Your task to perform on an android device: Do I have any events tomorrow? Image 0: 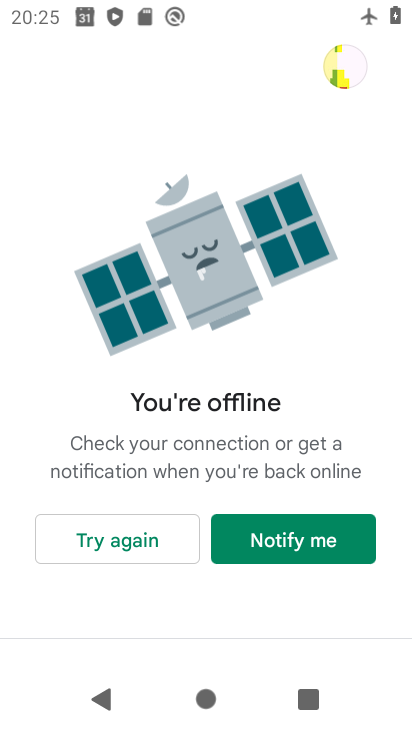
Step 0: press home button
Your task to perform on an android device: Do I have any events tomorrow? Image 1: 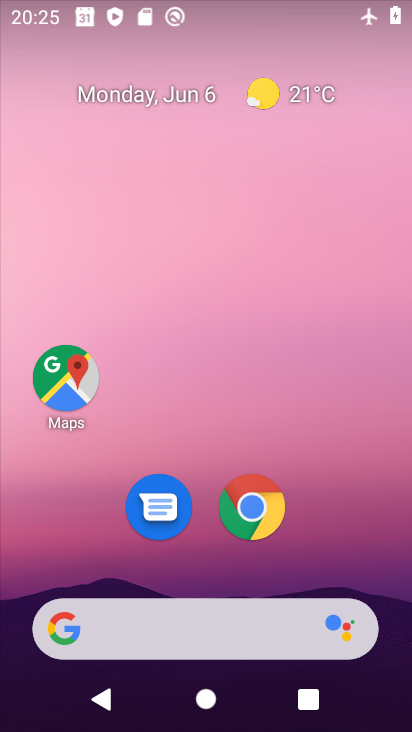
Step 1: drag from (215, 567) to (200, 57)
Your task to perform on an android device: Do I have any events tomorrow? Image 2: 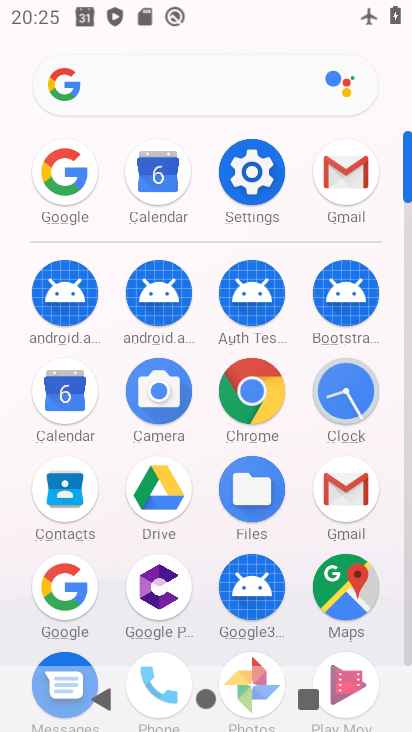
Step 2: click (64, 427)
Your task to perform on an android device: Do I have any events tomorrow? Image 3: 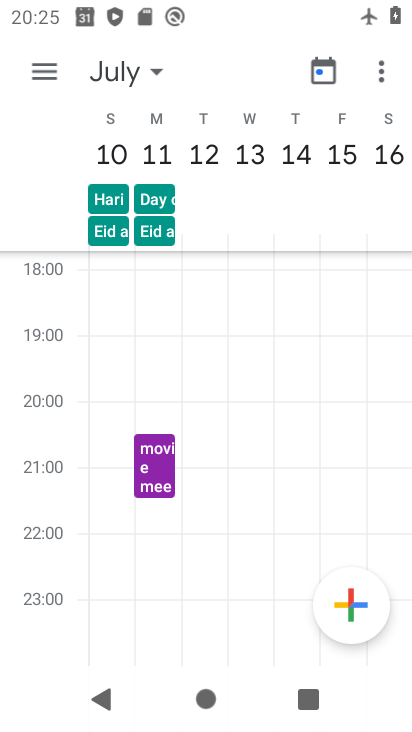
Step 3: click (123, 73)
Your task to perform on an android device: Do I have any events tomorrow? Image 4: 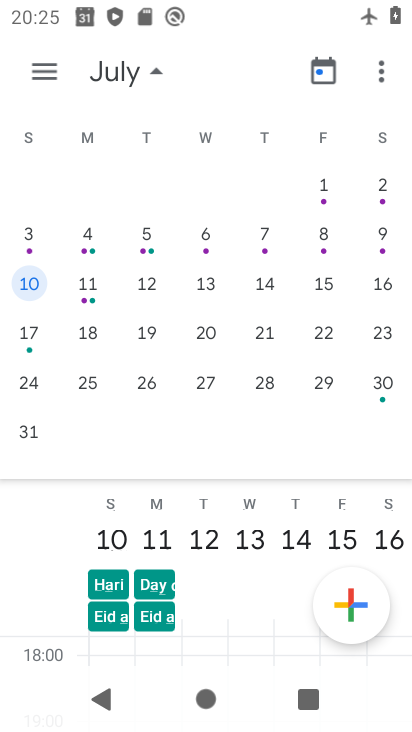
Step 4: drag from (73, 316) to (386, 358)
Your task to perform on an android device: Do I have any events tomorrow? Image 5: 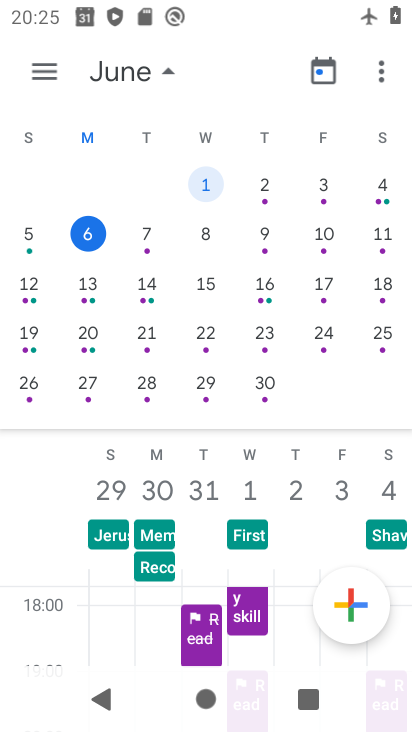
Step 5: click (35, 71)
Your task to perform on an android device: Do I have any events tomorrow? Image 6: 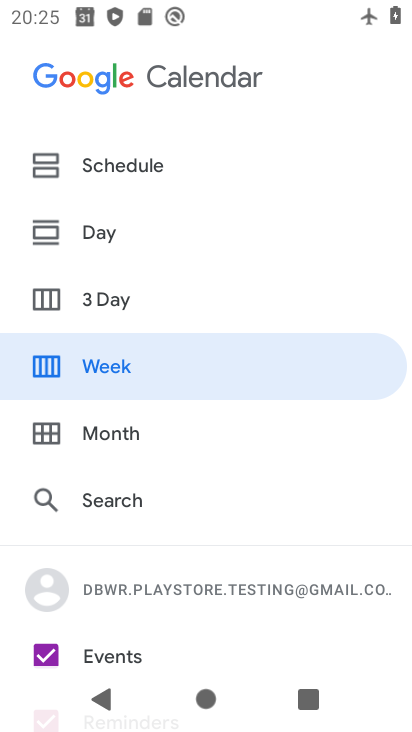
Step 6: click (100, 162)
Your task to perform on an android device: Do I have any events tomorrow? Image 7: 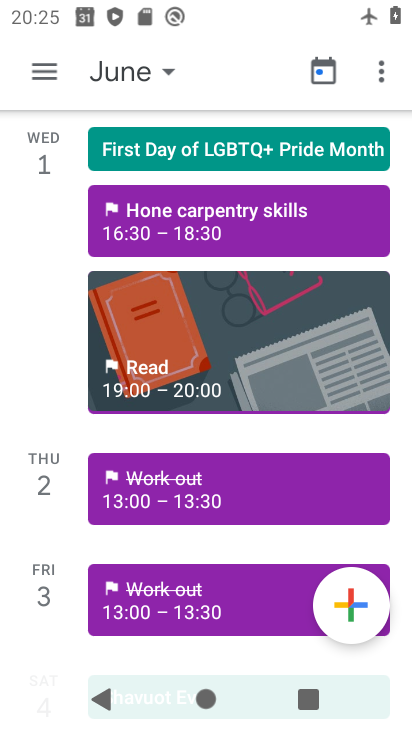
Step 7: task complete